Your task to perform on an android device: turn off translation in the chrome app Image 0: 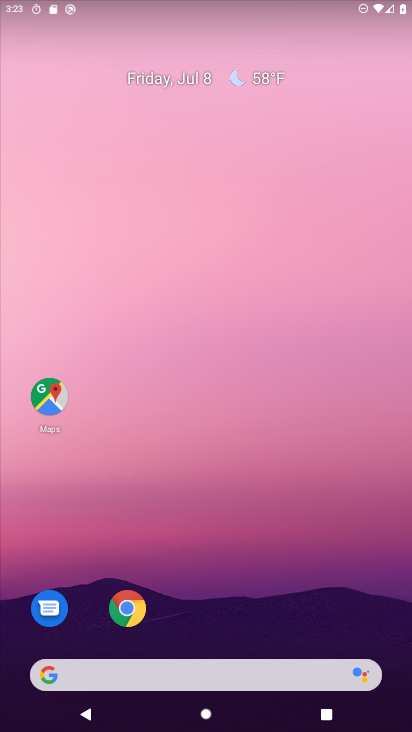
Step 0: click (123, 608)
Your task to perform on an android device: turn off translation in the chrome app Image 1: 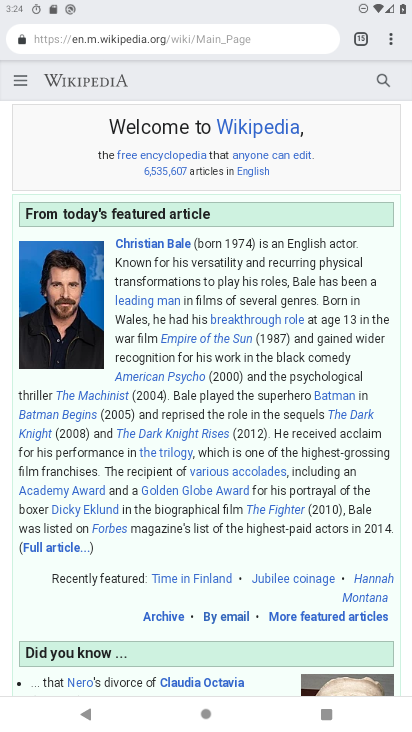
Step 1: click (393, 42)
Your task to perform on an android device: turn off translation in the chrome app Image 2: 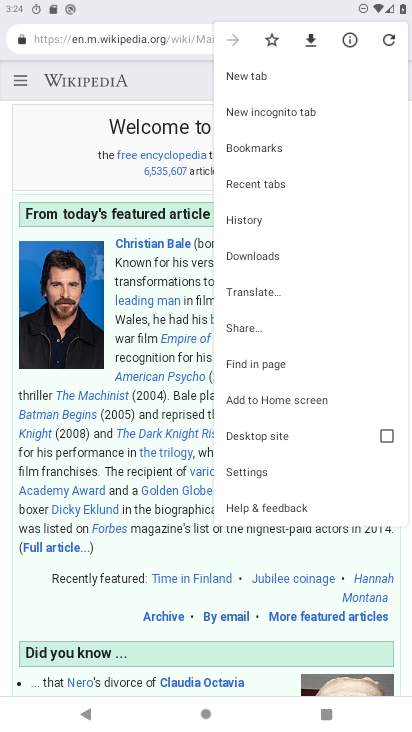
Step 2: click (244, 467)
Your task to perform on an android device: turn off translation in the chrome app Image 3: 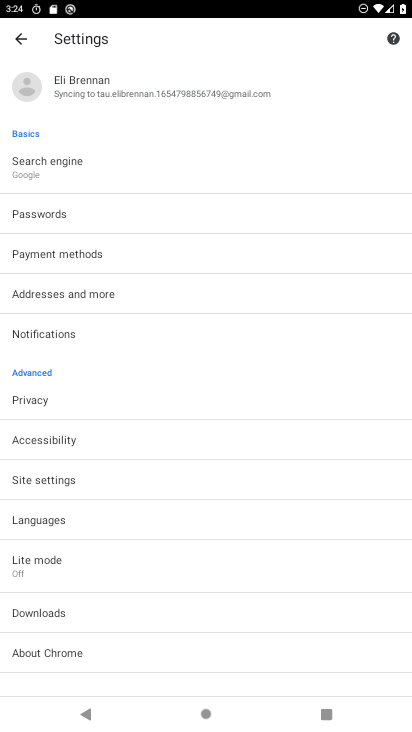
Step 3: click (54, 523)
Your task to perform on an android device: turn off translation in the chrome app Image 4: 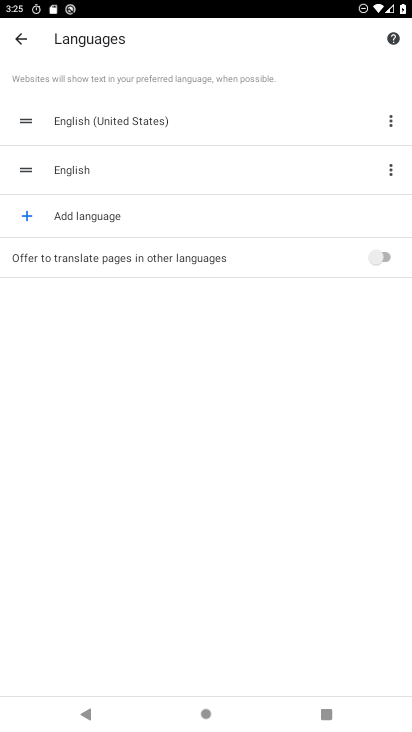
Step 4: task complete